Your task to perform on an android device: star an email in the gmail app Image 0: 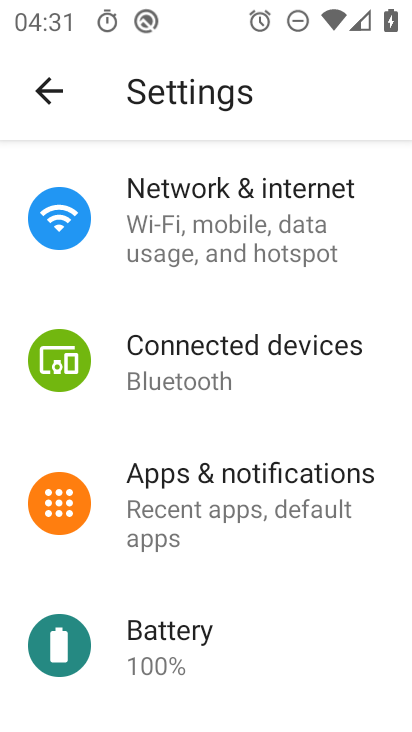
Step 0: drag from (277, 673) to (282, 354)
Your task to perform on an android device: star an email in the gmail app Image 1: 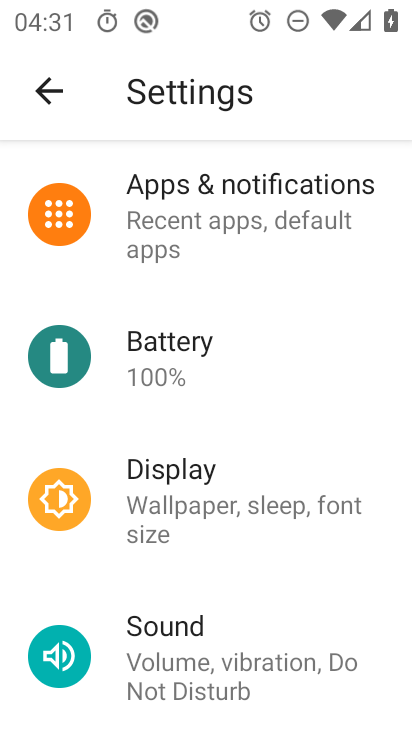
Step 1: press home button
Your task to perform on an android device: star an email in the gmail app Image 2: 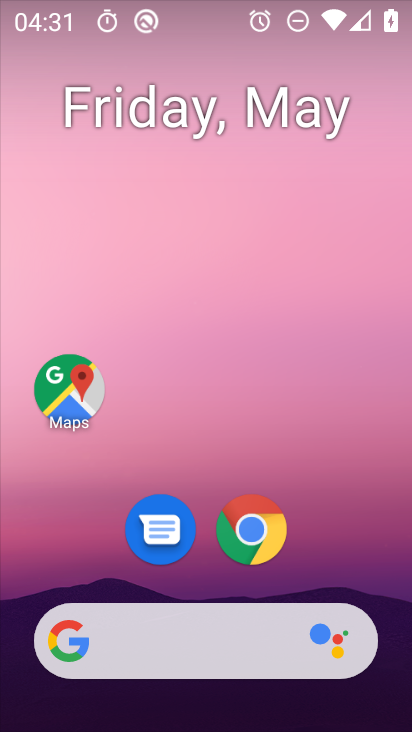
Step 2: drag from (396, 688) to (358, 366)
Your task to perform on an android device: star an email in the gmail app Image 3: 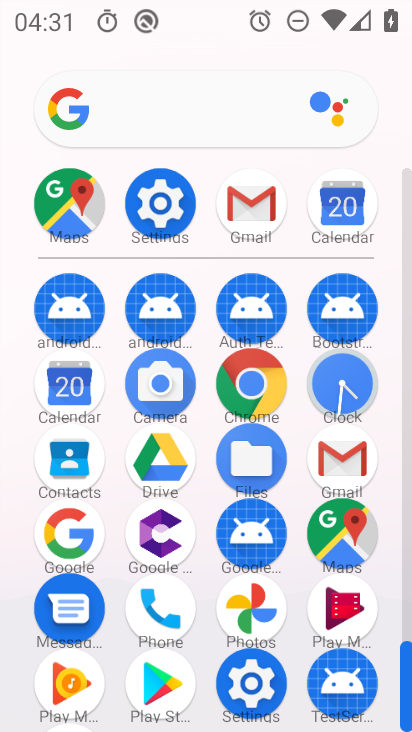
Step 3: click (334, 470)
Your task to perform on an android device: star an email in the gmail app Image 4: 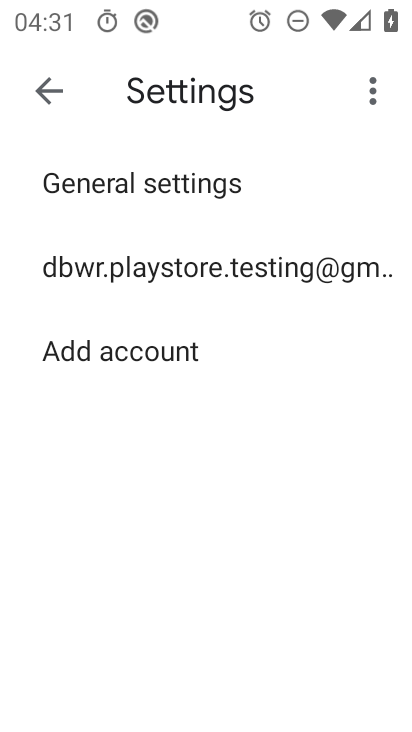
Step 4: click (36, 95)
Your task to perform on an android device: star an email in the gmail app Image 5: 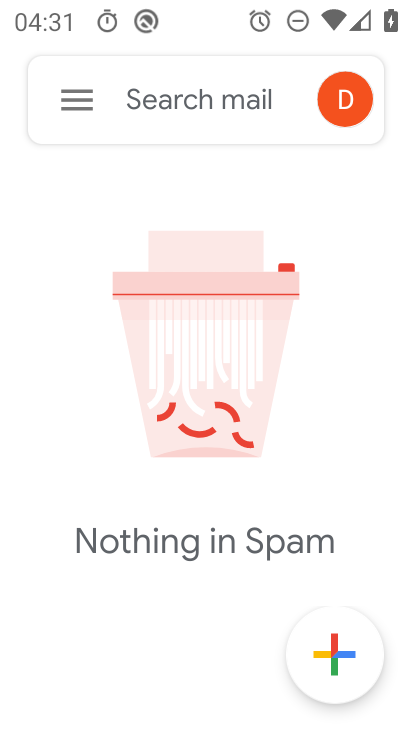
Step 5: click (94, 106)
Your task to perform on an android device: star an email in the gmail app Image 6: 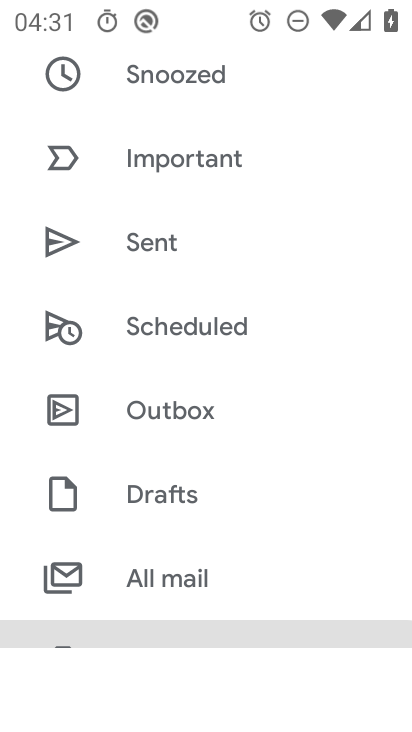
Step 6: drag from (275, 223) to (298, 511)
Your task to perform on an android device: star an email in the gmail app Image 7: 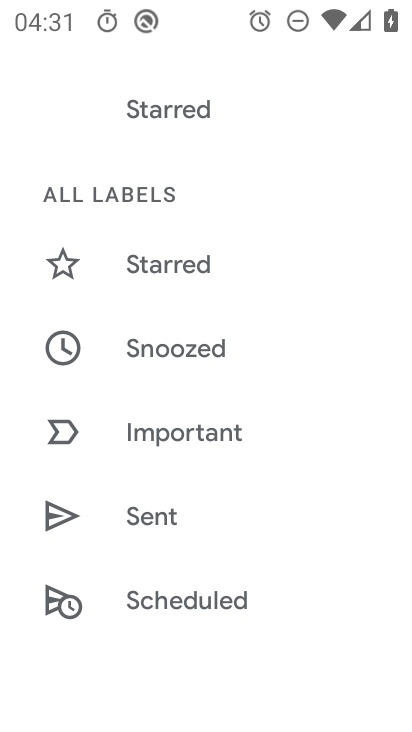
Step 7: drag from (247, 105) to (290, 490)
Your task to perform on an android device: star an email in the gmail app Image 8: 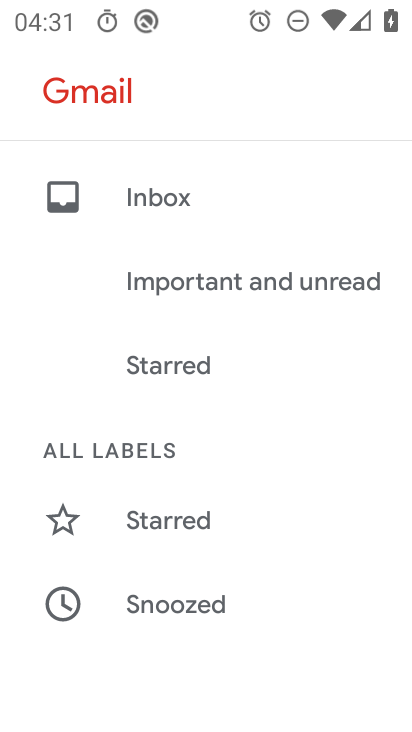
Step 8: click (175, 194)
Your task to perform on an android device: star an email in the gmail app Image 9: 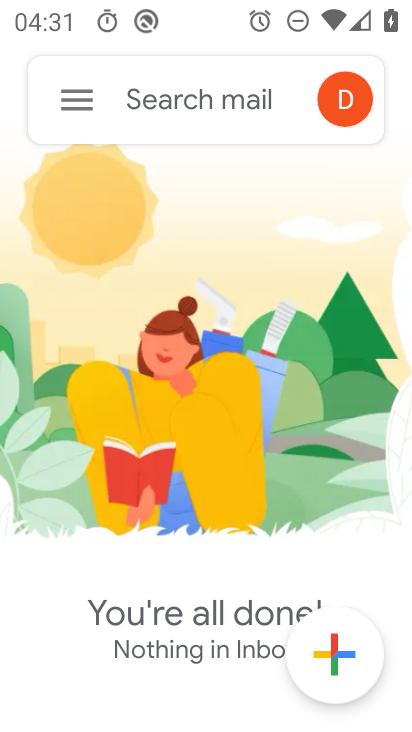
Step 9: task complete